Your task to perform on an android device: Open my contact list Image 0: 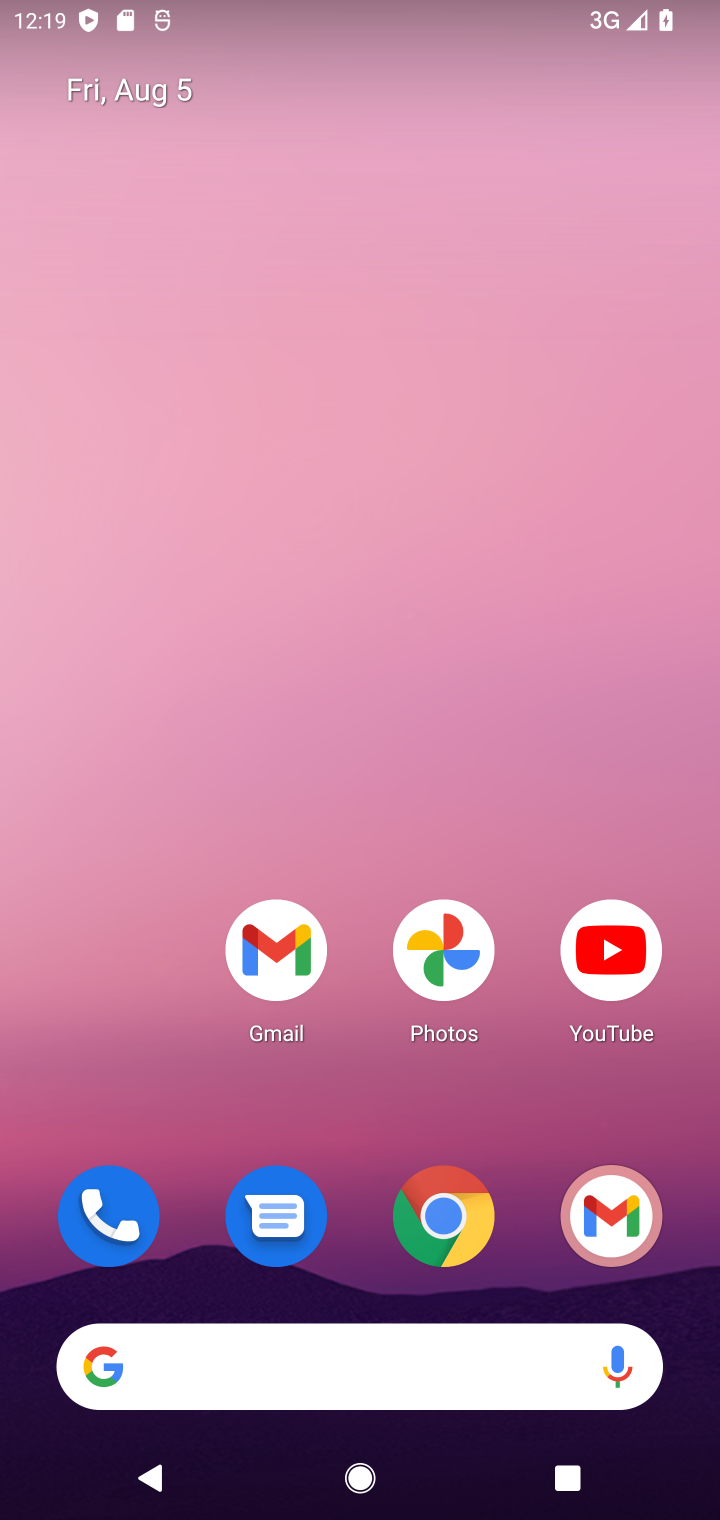
Step 0: drag from (497, 1354) to (420, 171)
Your task to perform on an android device: Open my contact list Image 1: 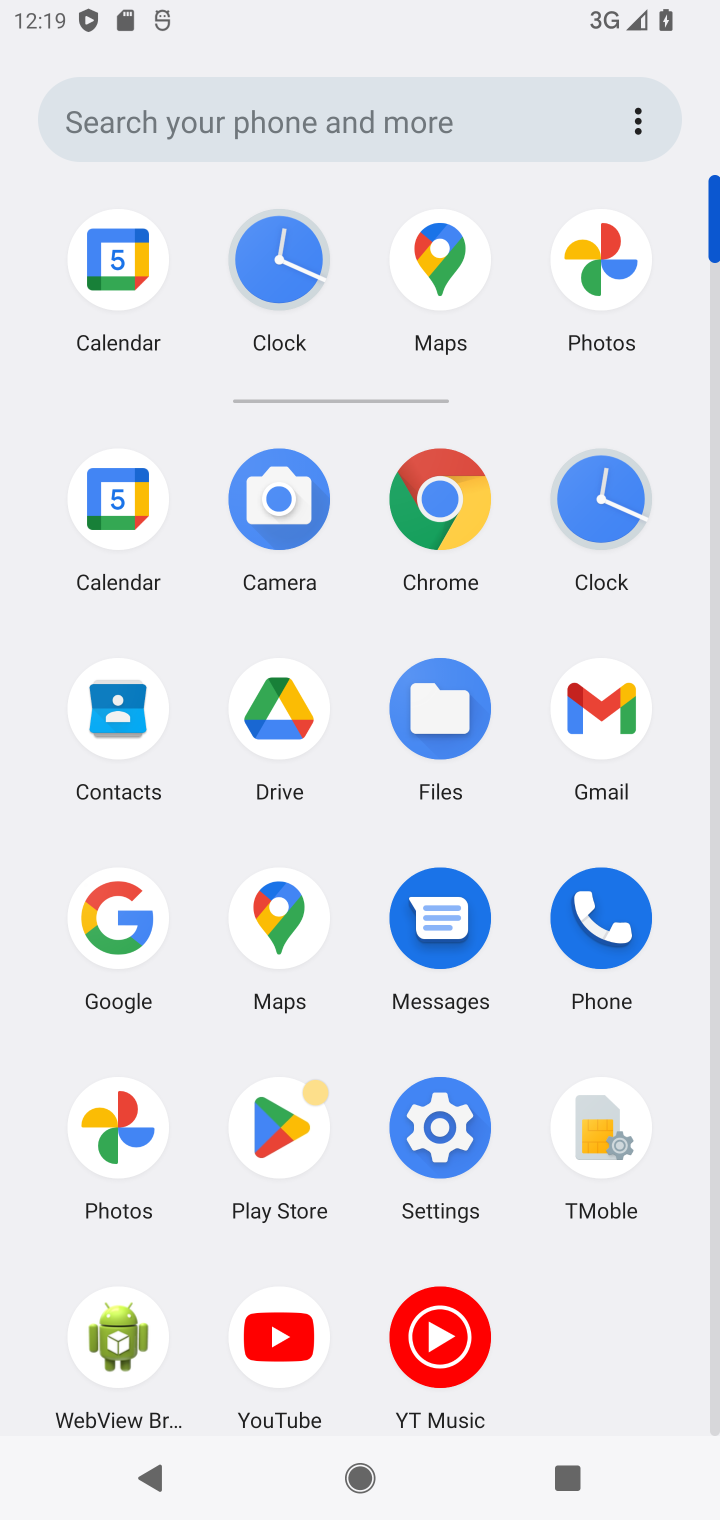
Step 1: click (147, 698)
Your task to perform on an android device: Open my contact list Image 2: 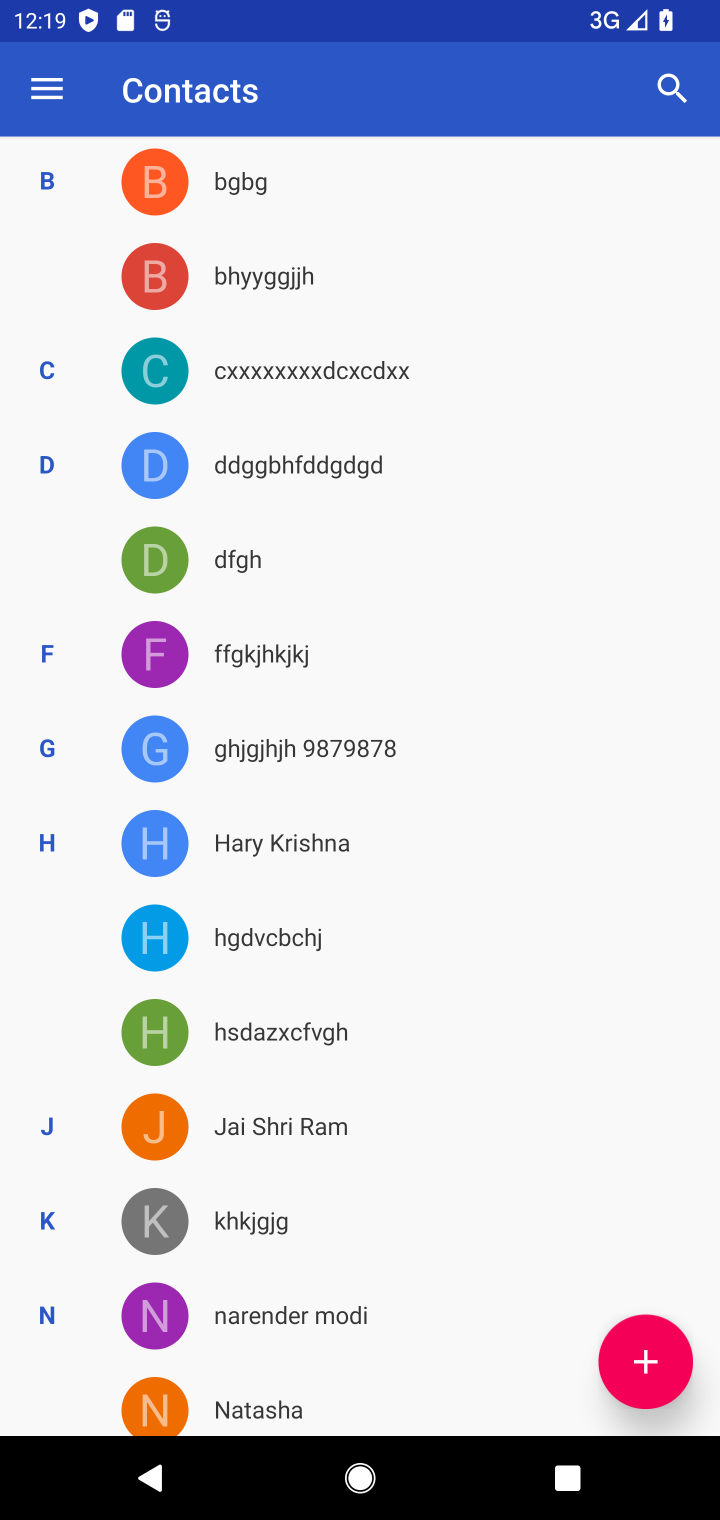
Step 2: task complete